Your task to perform on an android device: toggle improve location accuracy Image 0: 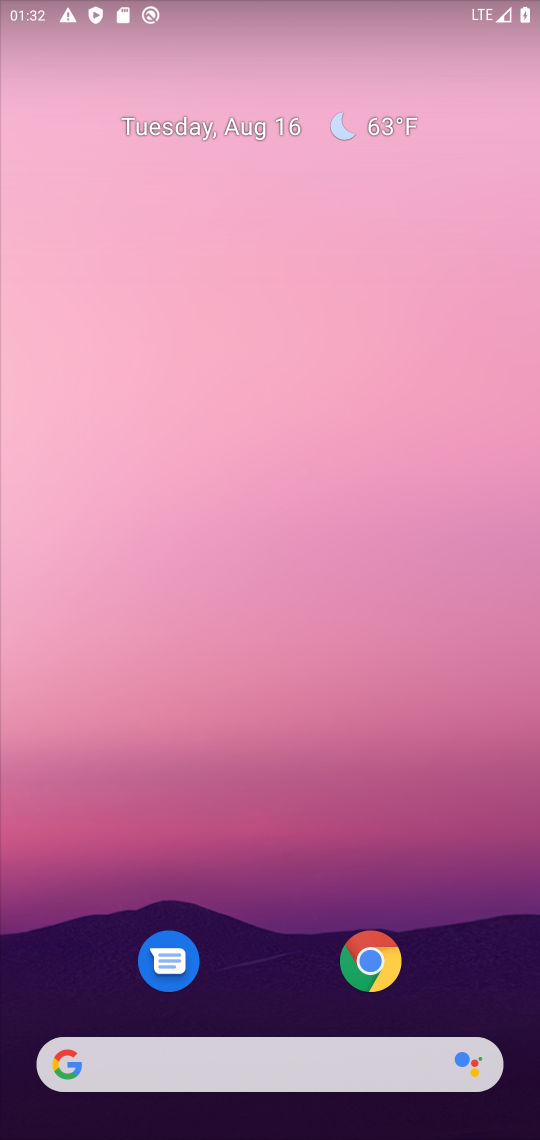
Step 0: press home button
Your task to perform on an android device: toggle improve location accuracy Image 1: 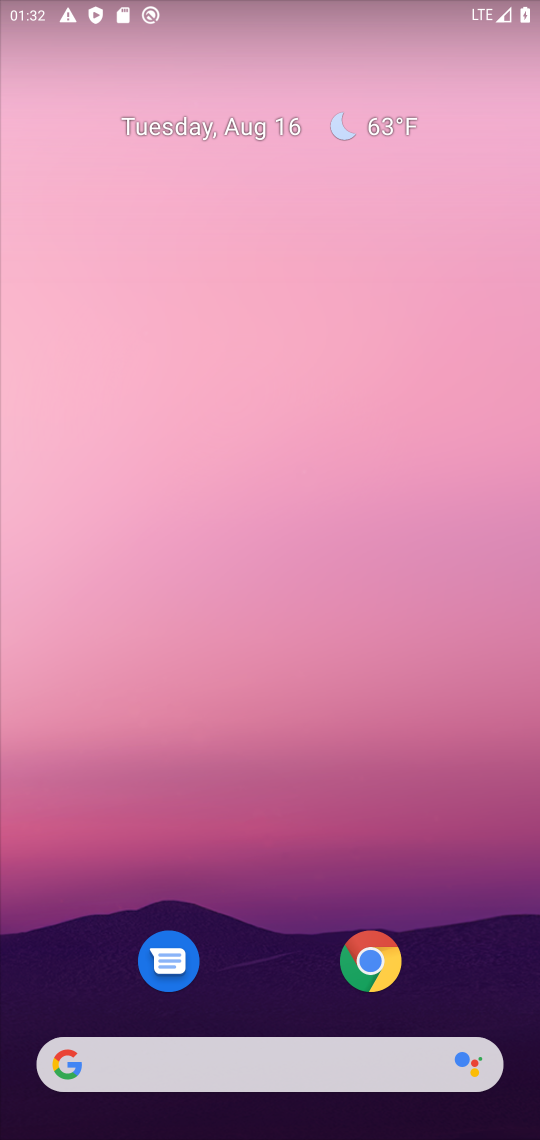
Step 1: press home button
Your task to perform on an android device: toggle improve location accuracy Image 2: 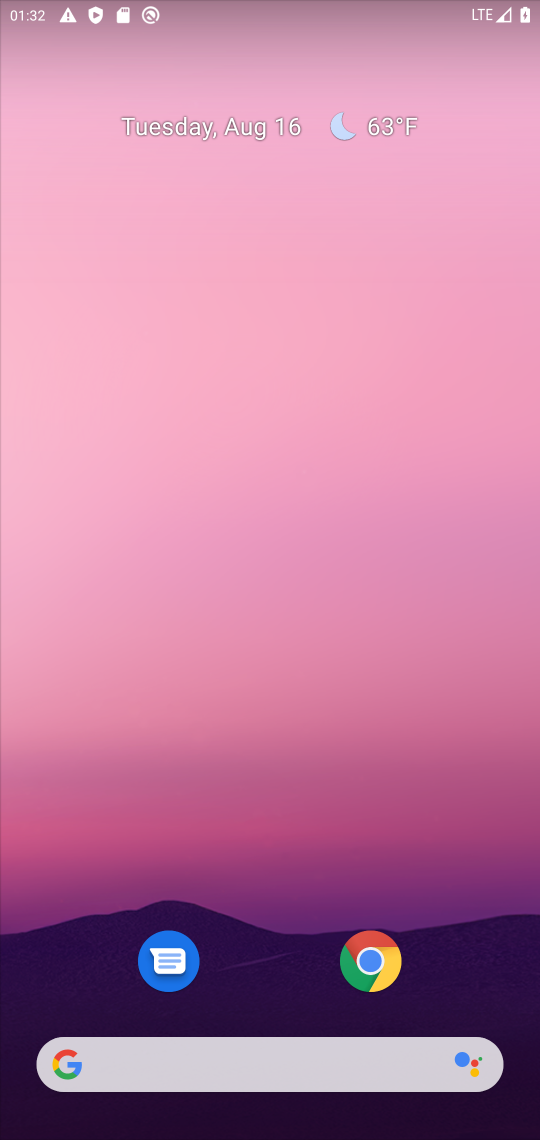
Step 2: drag from (236, 961) to (268, 99)
Your task to perform on an android device: toggle improve location accuracy Image 3: 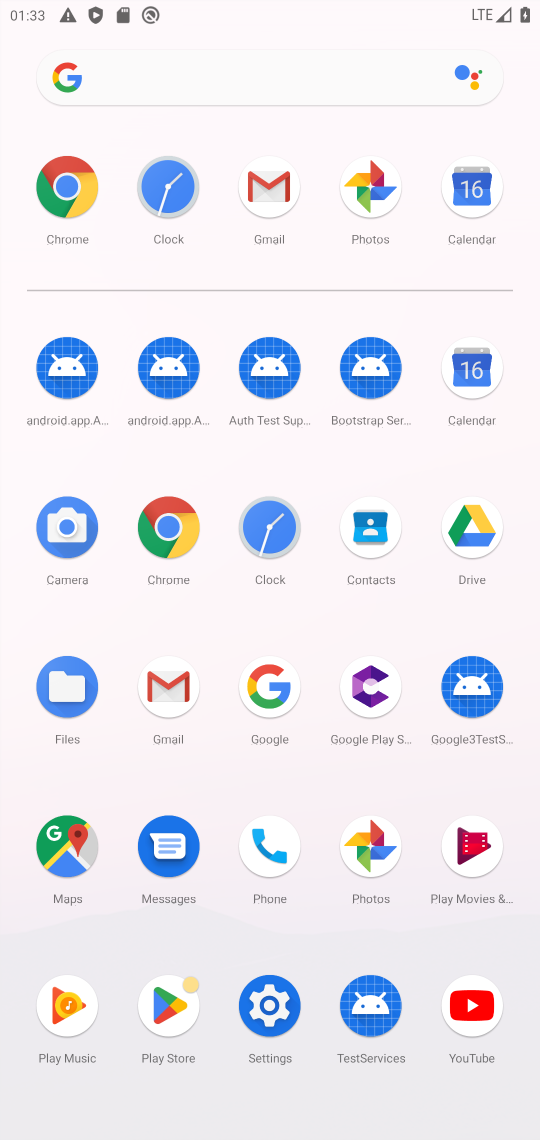
Step 3: click (271, 1014)
Your task to perform on an android device: toggle improve location accuracy Image 4: 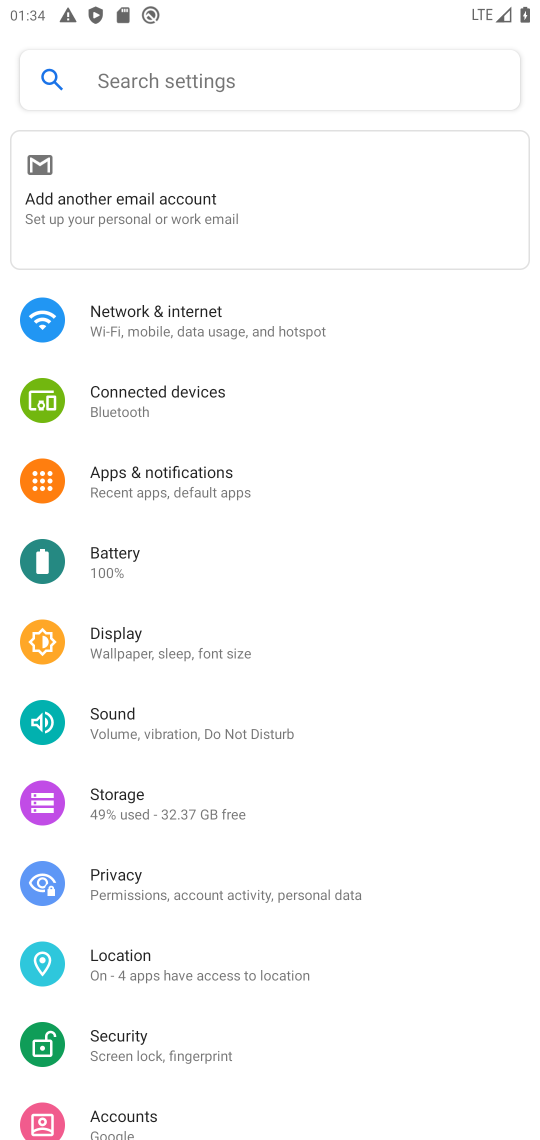
Step 4: click (122, 990)
Your task to perform on an android device: toggle improve location accuracy Image 5: 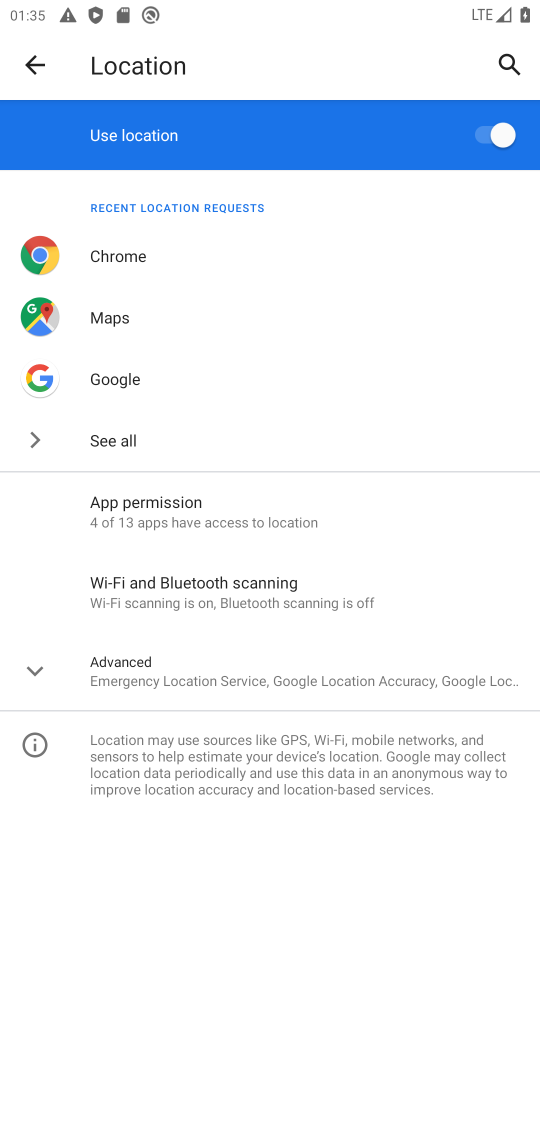
Step 5: click (124, 645)
Your task to perform on an android device: toggle improve location accuracy Image 6: 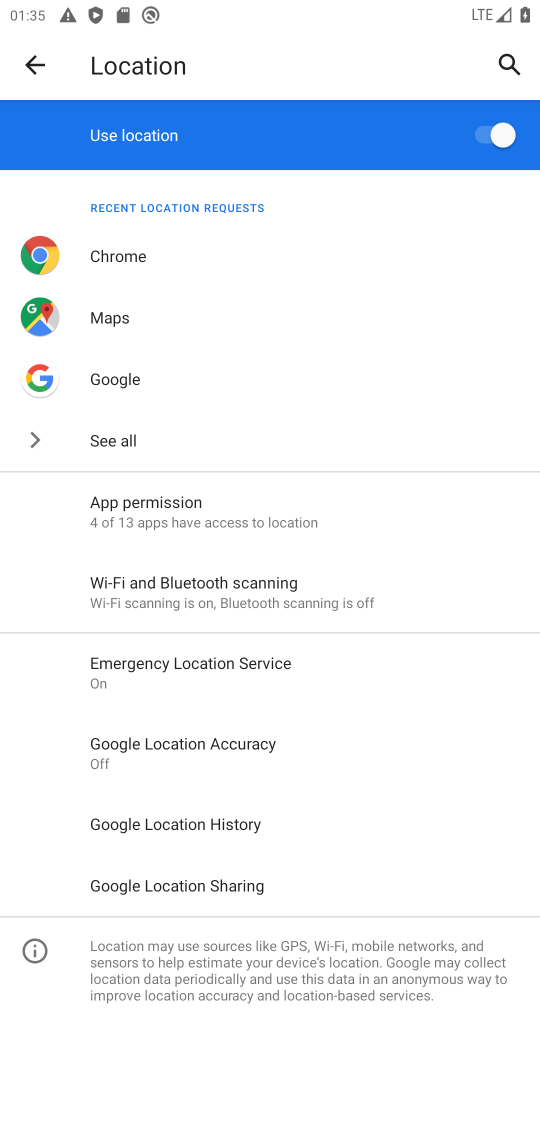
Step 6: click (157, 737)
Your task to perform on an android device: toggle improve location accuracy Image 7: 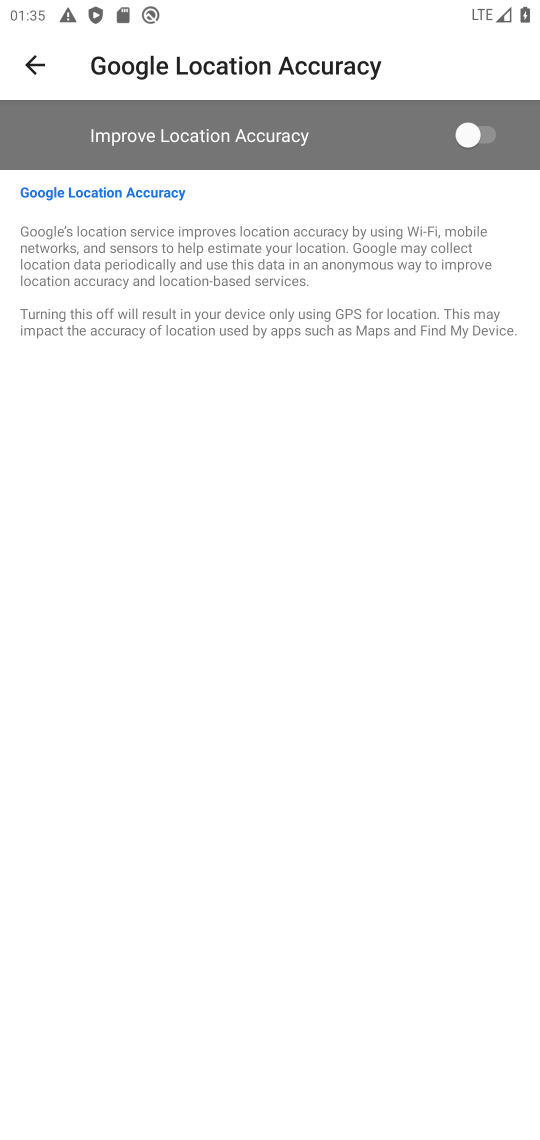
Step 7: task complete